Your task to perform on an android device: change notification settings in the gmail app Image 0: 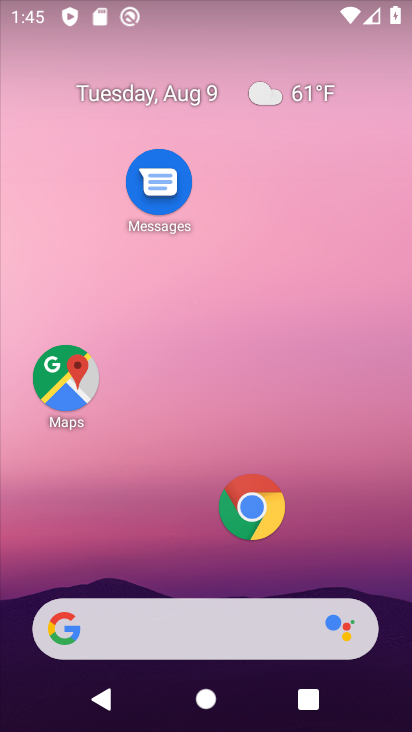
Step 0: drag from (175, 586) to (249, 151)
Your task to perform on an android device: change notification settings in the gmail app Image 1: 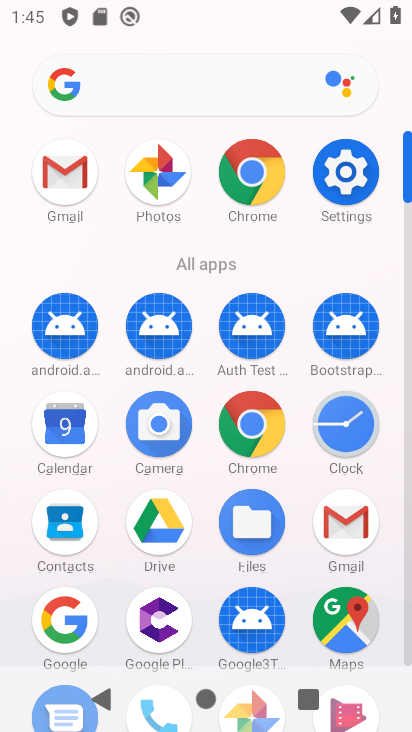
Step 1: click (69, 170)
Your task to perform on an android device: change notification settings in the gmail app Image 2: 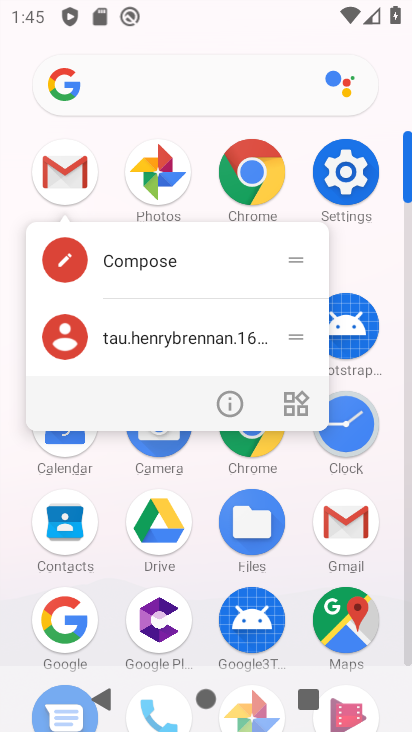
Step 2: click (232, 403)
Your task to perform on an android device: change notification settings in the gmail app Image 3: 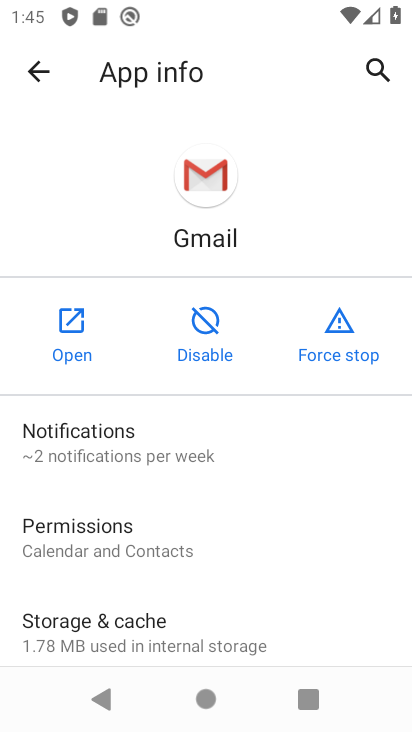
Step 3: click (130, 456)
Your task to perform on an android device: change notification settings in the gmail app Image 4: 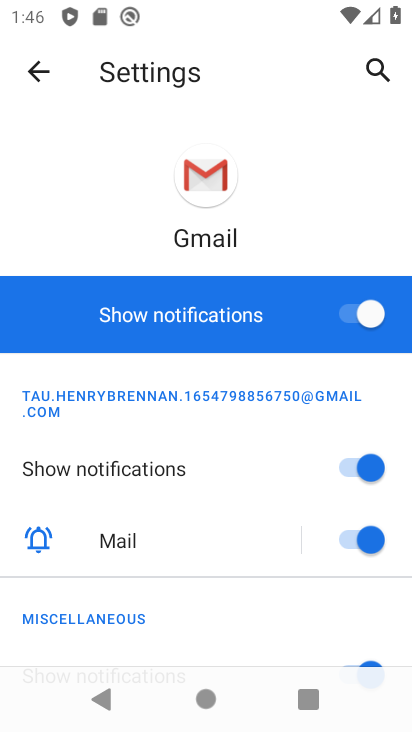
Step 4: drag from (224, 555) to (251, 290)
Your task to perform on an android device: change notification settings in the gmail app Image 5: 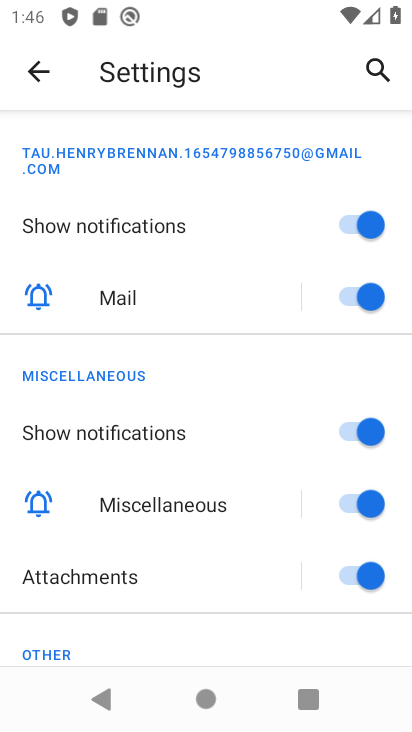
Step 5: drag from (186, 566) to (221, 350)
Your task to perform on an android device: change notification settings in the gmail app Image 6: 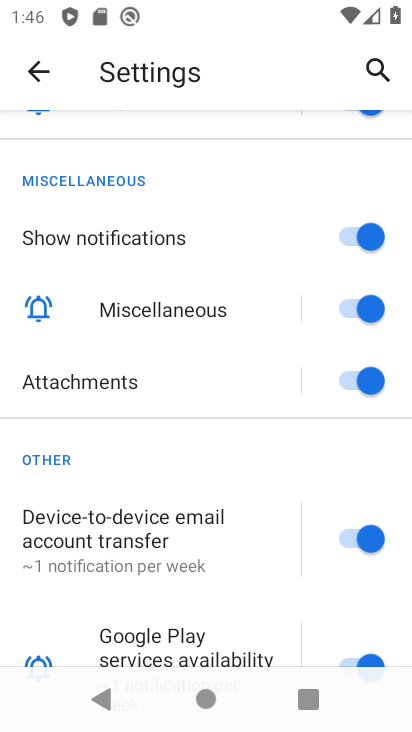
Step 6: click (366, 225)
Your task to perform on an android device: change notification settings in the gmail app Image 7: 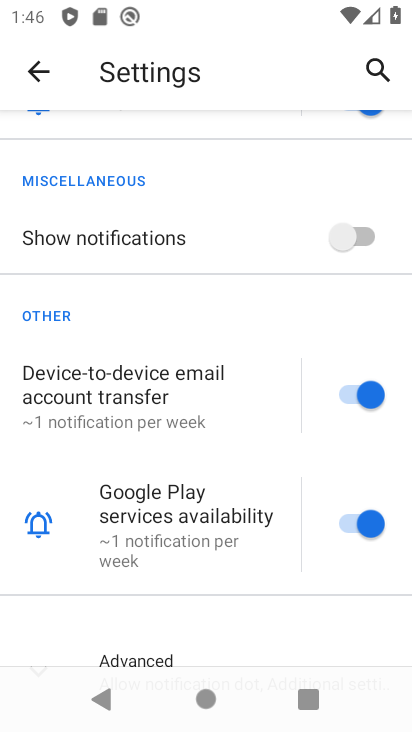
Step 7: task complete